Your task to perform on an android device: Open privacy settings Image 0: 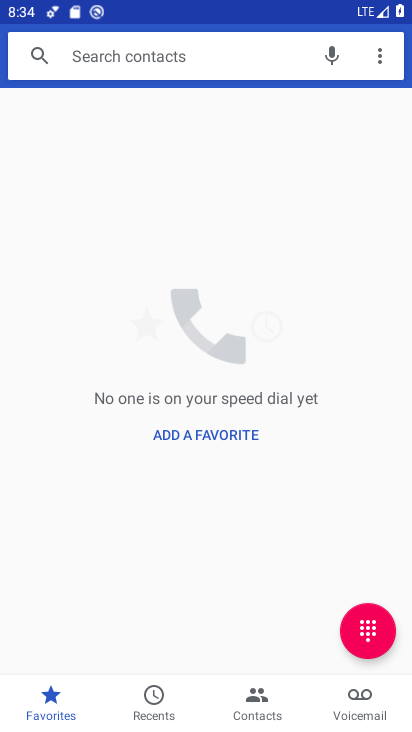
Step 0: press home button
Your task to perform on an android device: Open privacy settings Image 1: 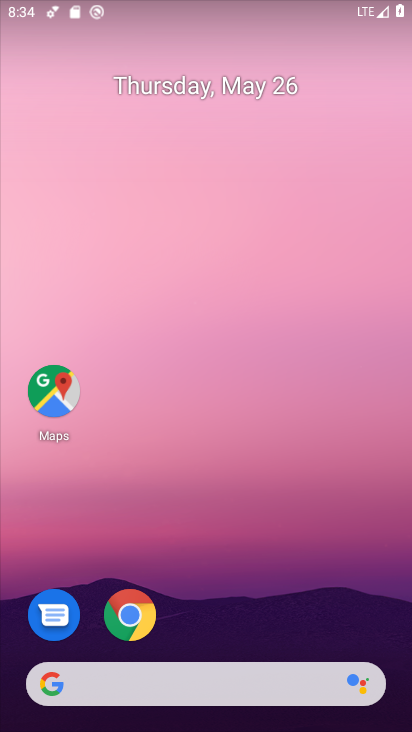
Step 1: drag from (288, 597) to (282, 106)
Your task to perform on an android device: Open privacy settings Image 2: 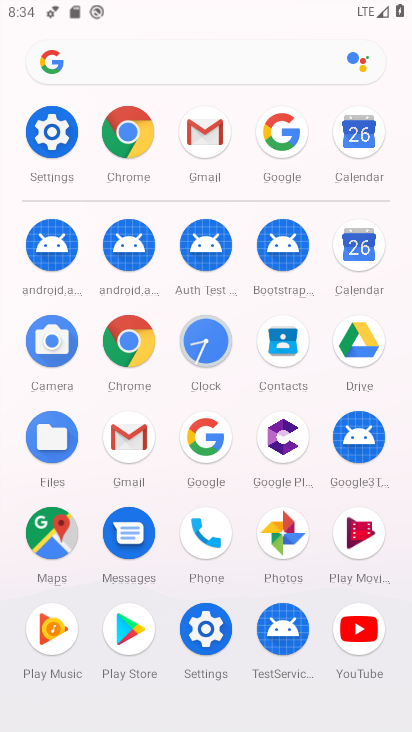
Step 2: click (55, 126)
Your task to perform on an android device: Open privacy settings Image 3: 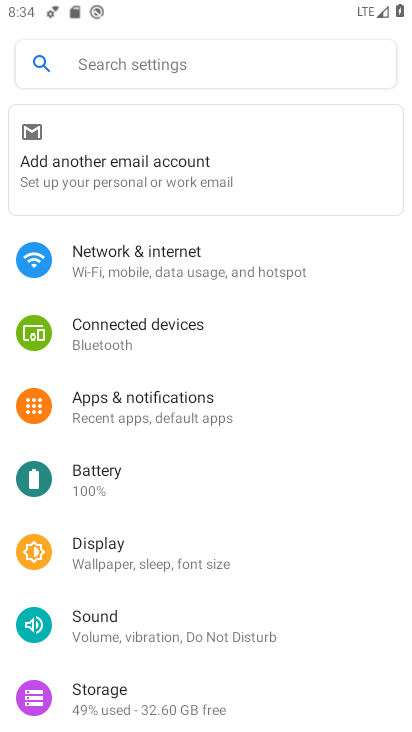
Step 3: drag from (187, 503) to (236, 161)
Your task to perform on an android device: Open privacy settings Image 4: 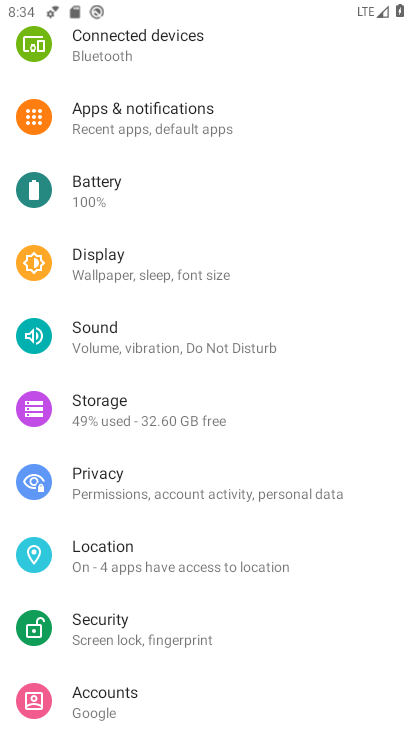
Step 4: click (162, 484)
Your task to perform on an android device: Open privacy settings Image 5: 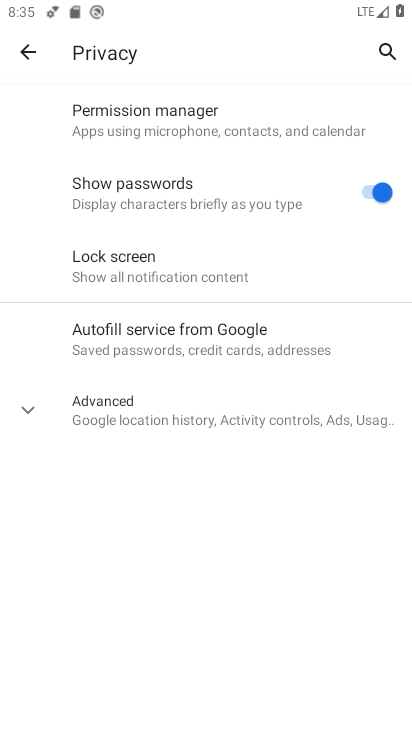
Step 5: task complete